Your task to perform on an android device: Open Maps and search for coffee Image 0: 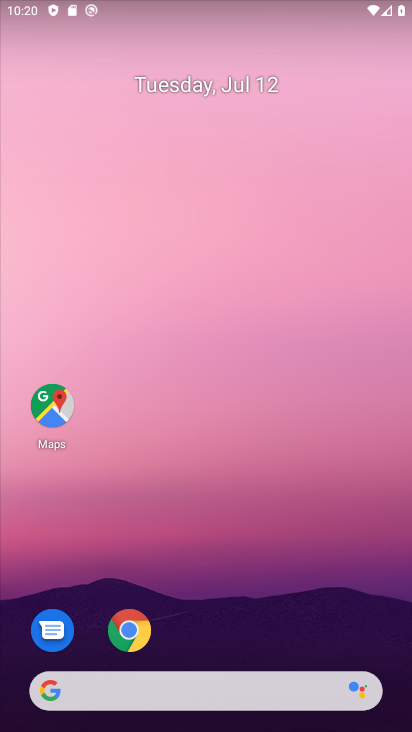
Step 0: drag from (203, 635) to (261, 254)
Your task to perform on an android device: Open Maps and search for coffee Image 1: 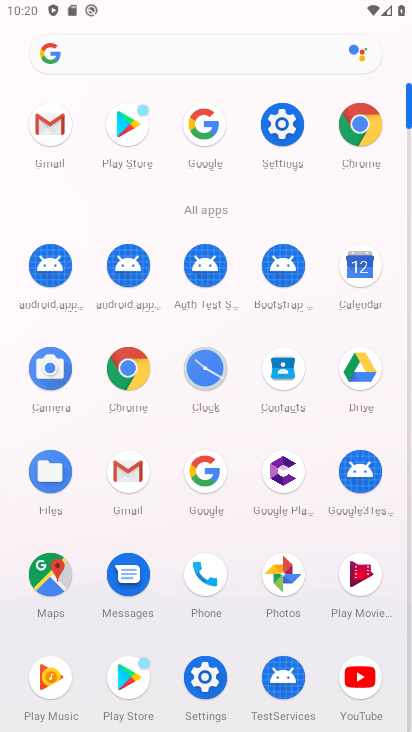
Step 1: click (51, 577)
Your task to perform on an android device: Open Maps and search for coffee Image 2: 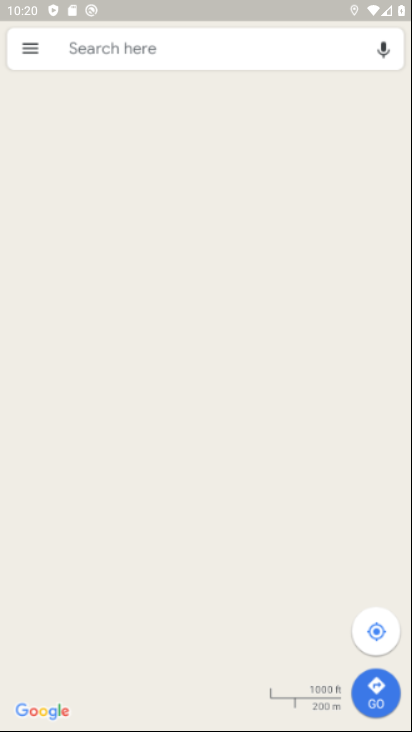
Step 2: click (169, 54)
Your task to perform on an android device: Open Maps and search for coffee Image 3: 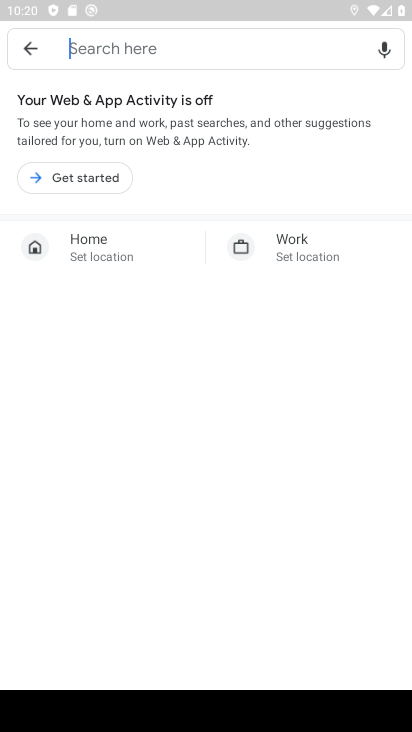
Step 3: click (69, 176)
Your task to perform on an android device: Open Maps and search for coffee Image 4: 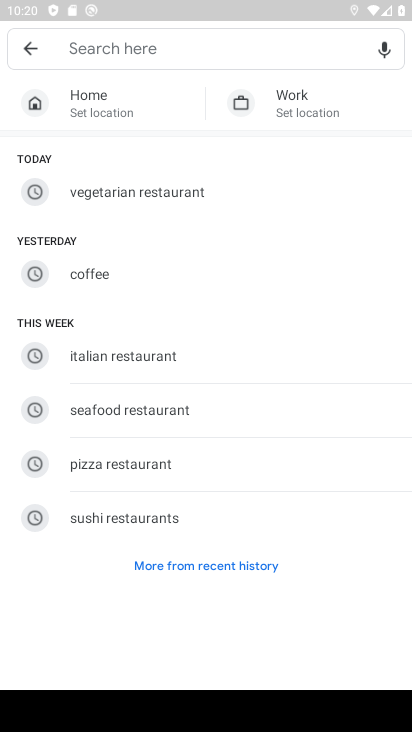
Step 4: click (90, 272)
Your task to perform on an android device: Open Maps and search for coffee Image 5: 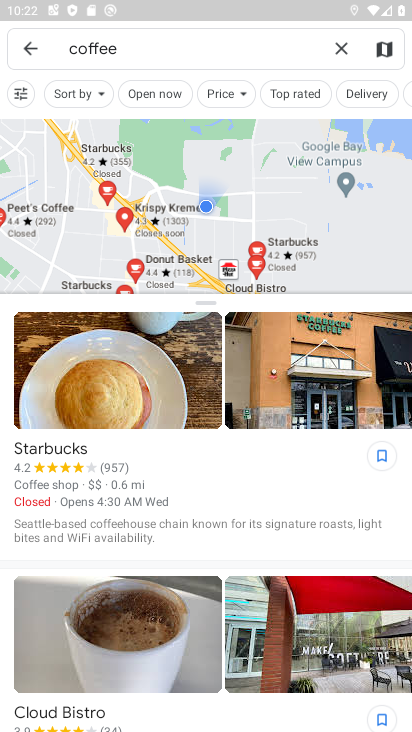
Step 5: task complete